Your task to perform on an android device: toggle show notifications on the lock screen Image 0: 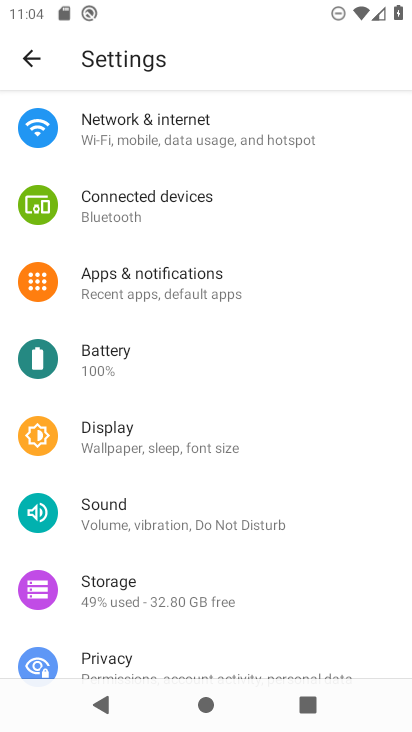
Step 0: press home button
Your task to perform on an android device: toggle show notifications on the lock screen Image 1: 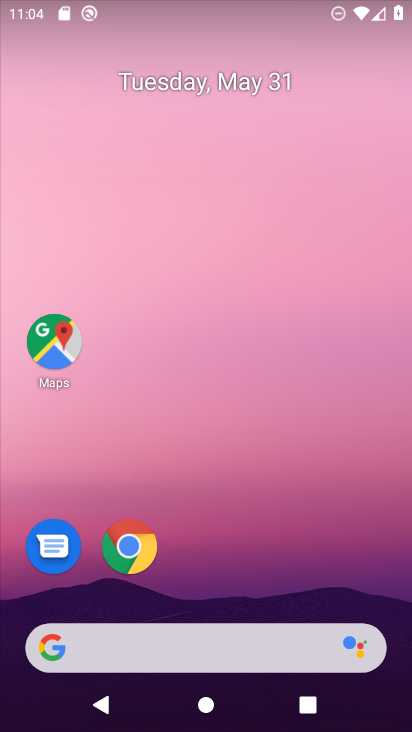
Step 1: drag from (315, 651) to (277, 16)
Your task to perform on an android device: toggle show notifications on the lock screen Image 2: 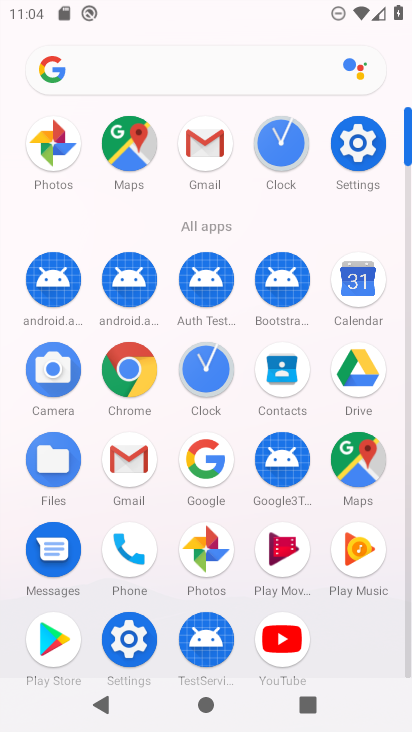
Step 2: click (366, 139)
Your task to perform on an android device: toggle show notifications on the lock screen Image 3: 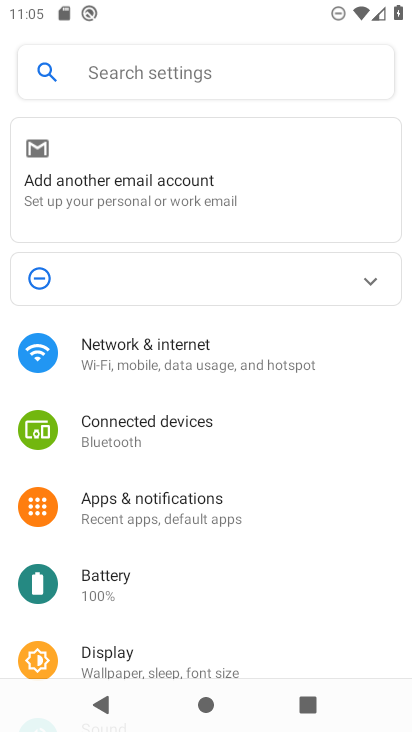
Step 3: click (132, 508)
Your task to perform on an android device: toggle show notifications on the lock screen Image 4: 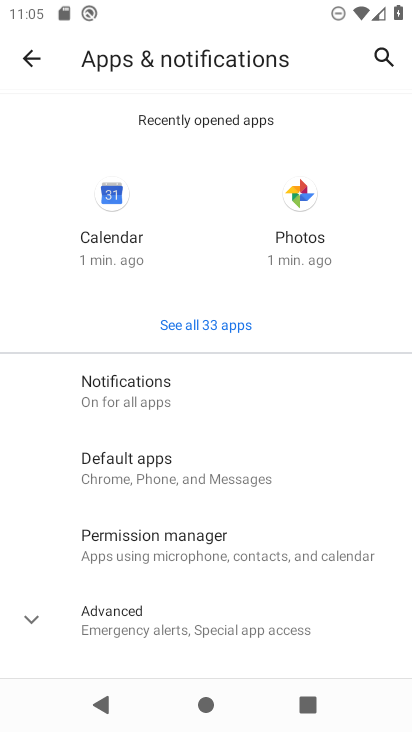
Step 4: drag from (202, 553) to (211, 416)
Your task to perform on an android device: toggle show notifications on the lock screen Image 5: 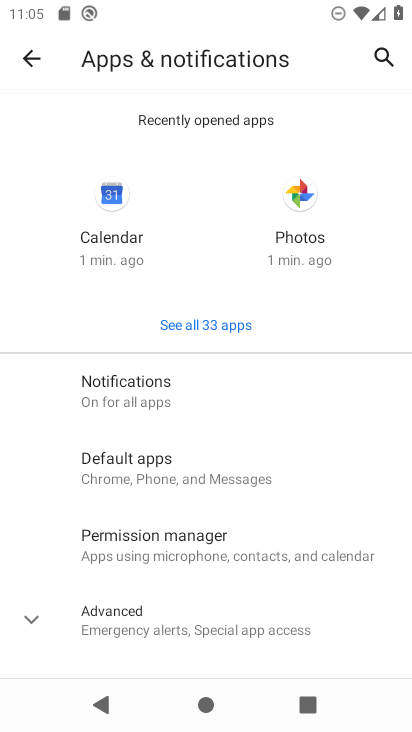
Step 5: click (146, 400)
Your task to perform on an android device: toggle show notifications on the lock screen Image 6: 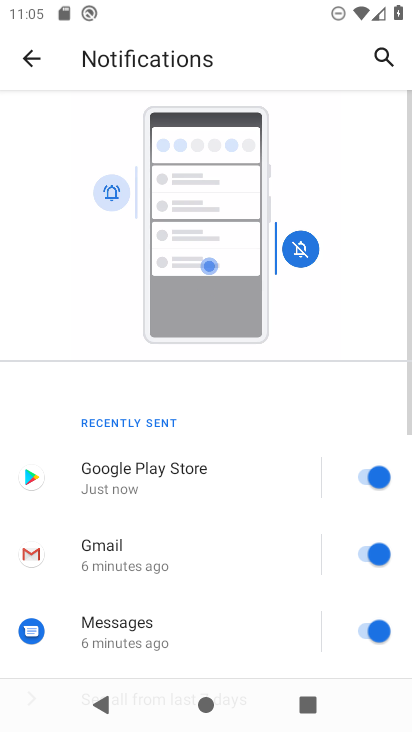
Step 6: drag from (162, 593) to (209, 172)
Your task to perform on an android device: toggle show notifications on the lock screen Image 7: 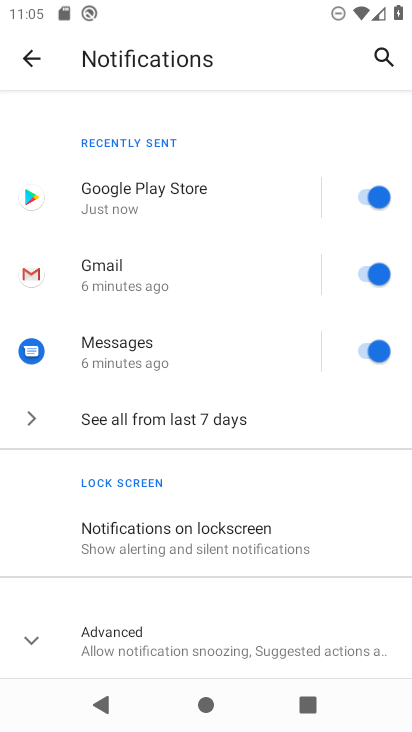
Step 7: click (202, 534)
Your task to perform on an android device: toggle show notifications on the lock screen Image 8: 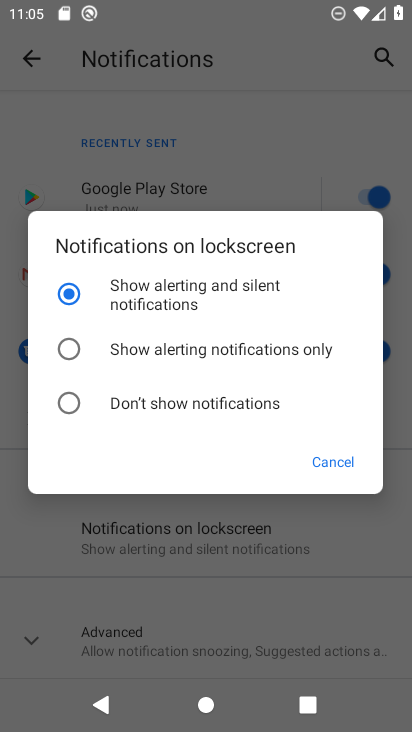
Step 8: click (73, 342)
Your task to perform on an android device: toggle show notifications on the lock screen Image 9: 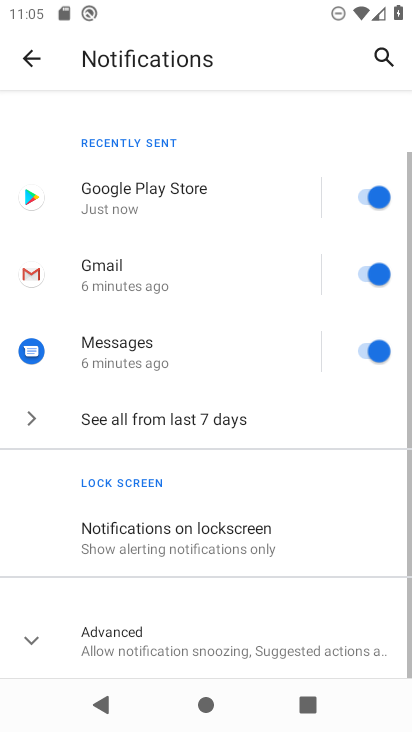
Step 9: task complete